Your task to perform on an android device: turn off smart reply in the gmail app Image 0: 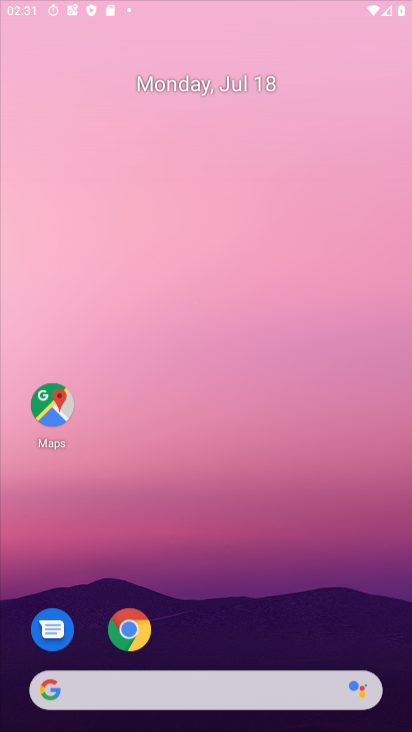
Step 0: drag from (217, 11) to (281, 618)
Your task to perform on an android device: turn off smart reply in the gmail app Image 1: 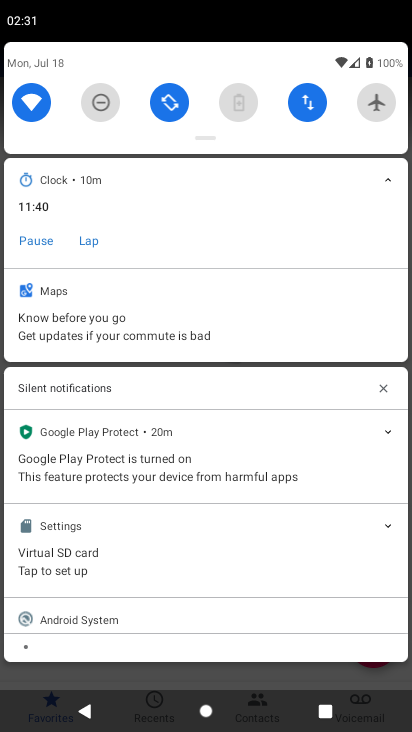
Step 1: press home button
Your task to perform on an android device: turn off smart reply in the gmail app Image 2: 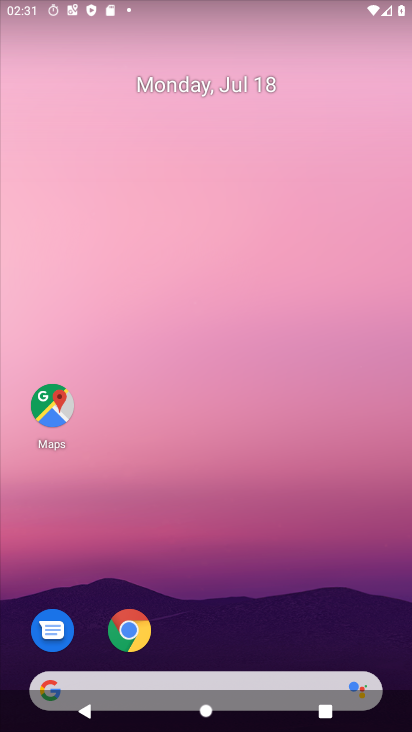
Step 2: drag from (191, 614) to (206, 108)
Your task to perform on an android device: turn off smart reply in the gmail app Image 3: 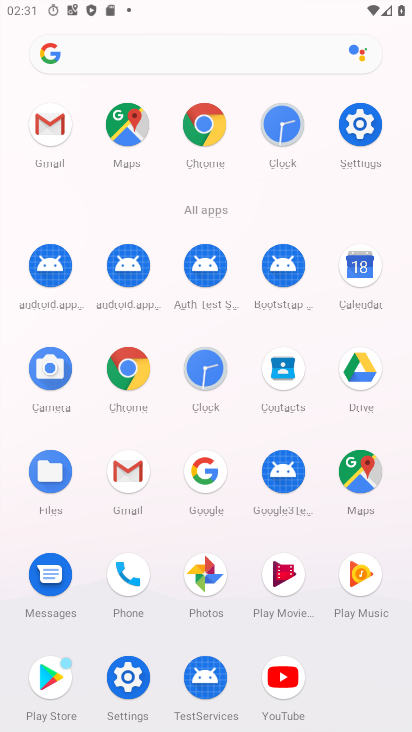
Step 3: click (61, 115)
Your task to perform on an android device: turn off smart reply in the gmail app Image 4: 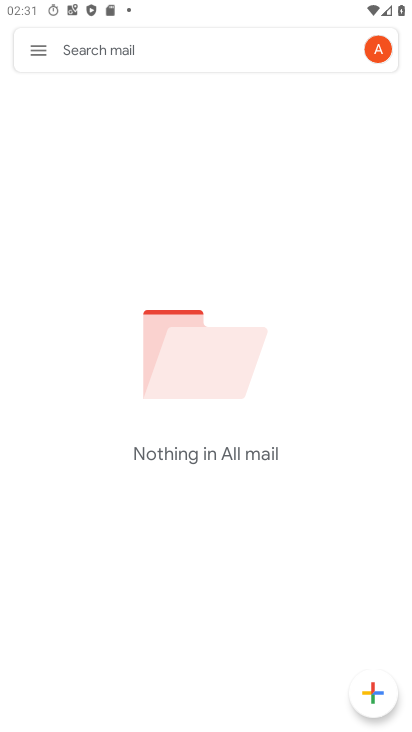
Step 4: click (40, 66)
Your task to perform on an android device: turn off smart reply in the gmail app Image 5: 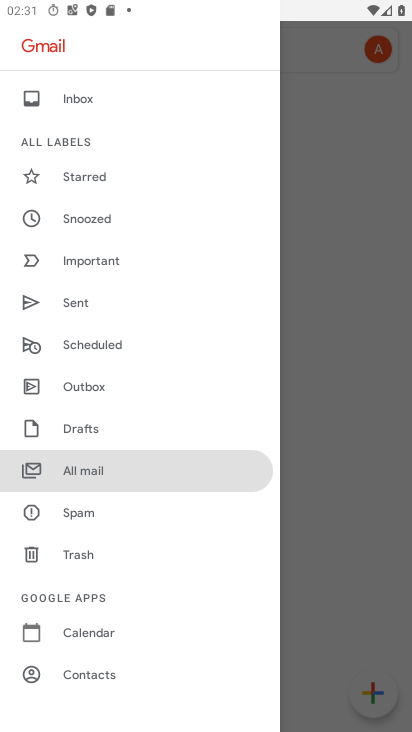
Step 5: drag from (104, 648) to (153, 153)
Your task to perform on an android device: turn off smart reply in the gmail app Image 6: 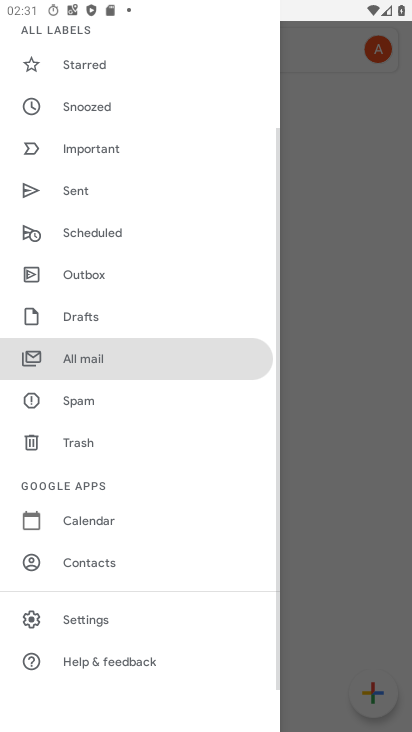
Step 6: click (90, 609)
Your task to perform on an android device: turn off smart reply in the gmail app Image 7: 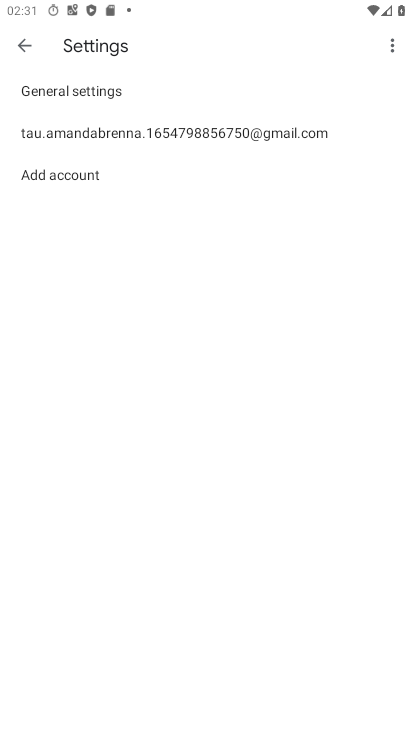
Step 7: click (210, 124)
Your task to perform on an android device: turn off smart reply in the gmail app Image 8: 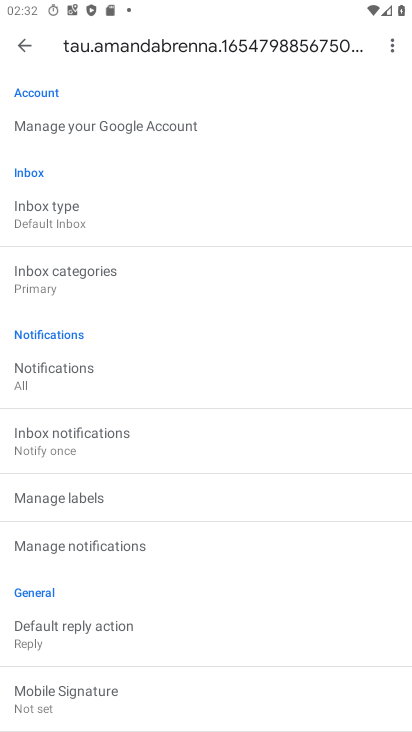
Step 8: drag from (130, 640) to (245, 108)
Your task to perform on an android device: turn off smart reply in the gmail app Image 9: 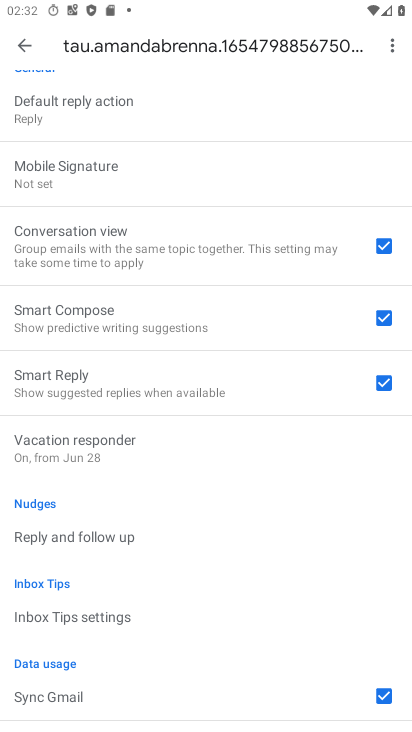
Step 9: click (386, 384)
Your task to perform on an android device: turn off smart reply in the gmail app Image 10: 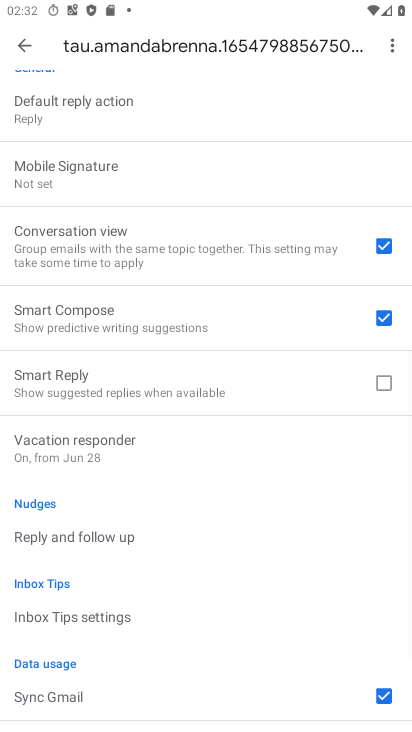
Step 10: task complete